Your task to perform on an android device: toggle airplane mode Image 0: 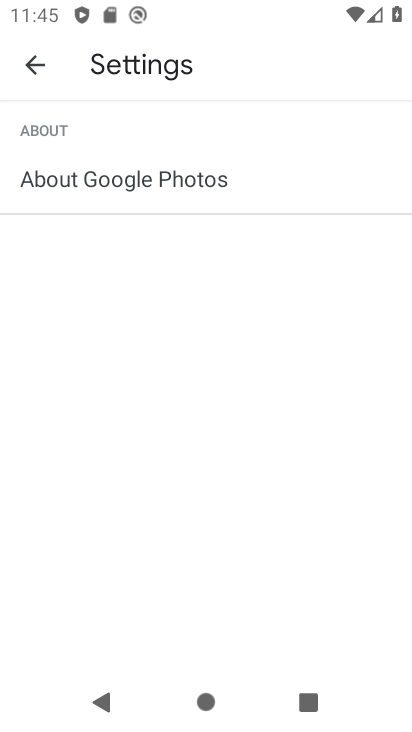
Step 0: press home button
Your task to perform on an android device: toggle airplane mode Image 1: 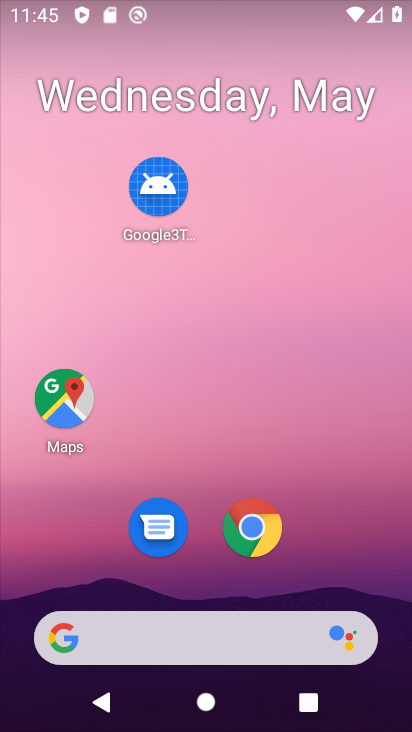
Step 1: drag from (259, 8) to (246, 459)
Your task to perform on an android device: toggle airplane mode Image 2: 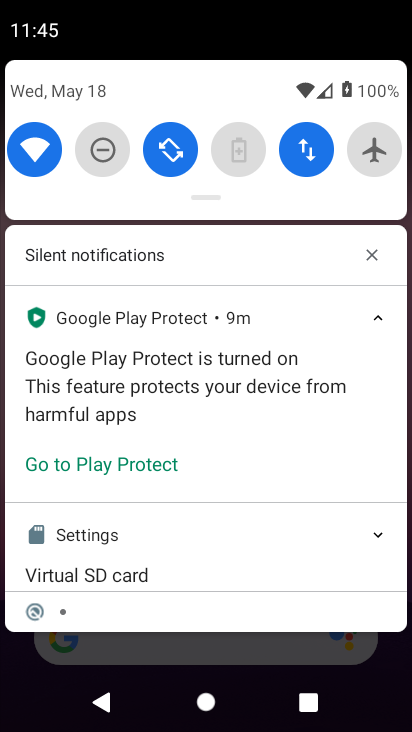
Step 2: click (376, 145)
Your task to perform on an android device: toggle airplane mode Image 3: 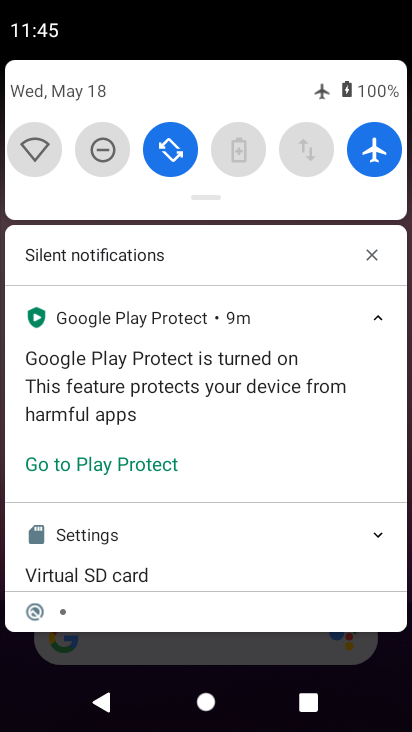
Step 3: task complete